Your task to perform on an android device: Open settings Image 0: 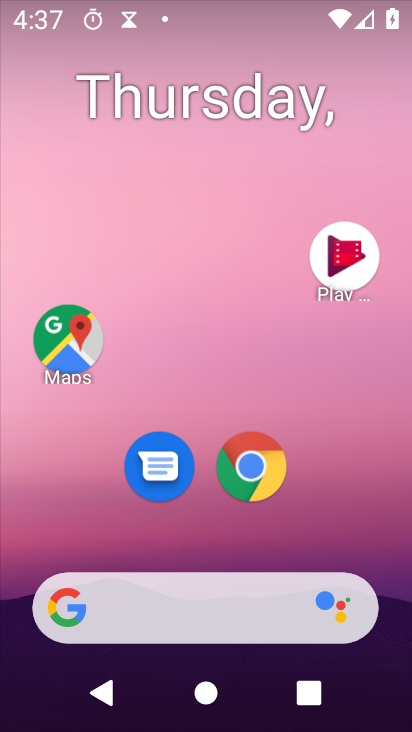
Step 0: drag from (173, 580) to (274, 2)
Your task to perform on an android device: Open settings Image 1: 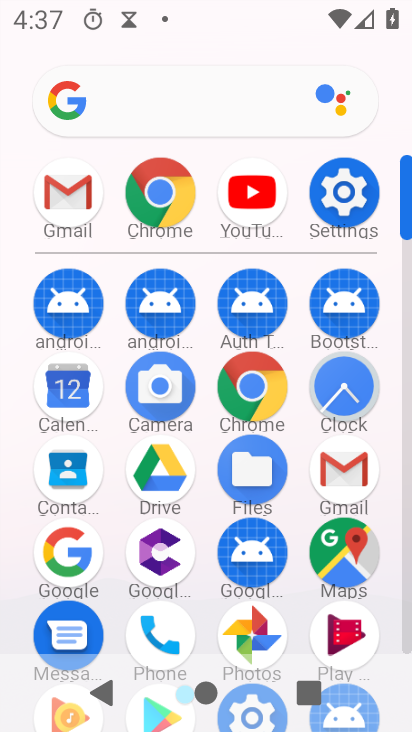
Step 1: click (342, 172)
Your task to perform on an android device: Open settings Image 2: 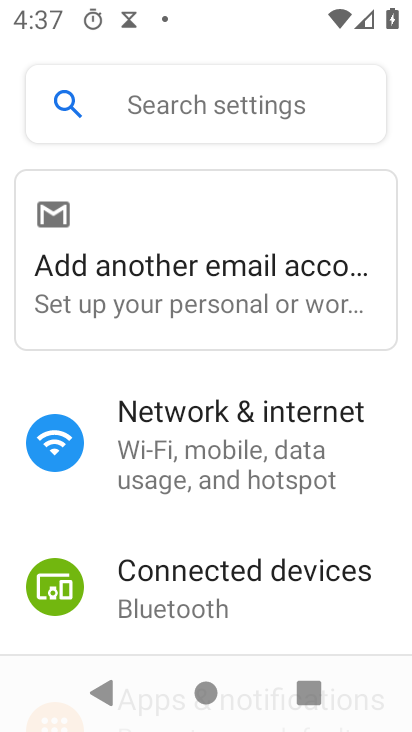
Step 2: task complete